Your task to perform on an android device: Open Reddit.com Image 0: 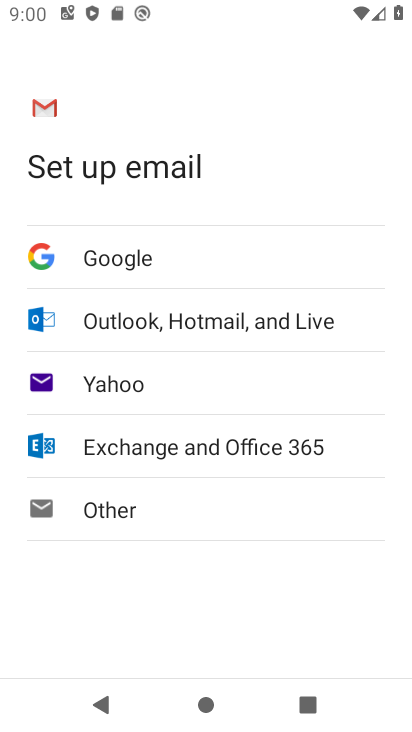
Step 0: press home button
Your task to perform on an android device: Open Reddit.com Image 1: 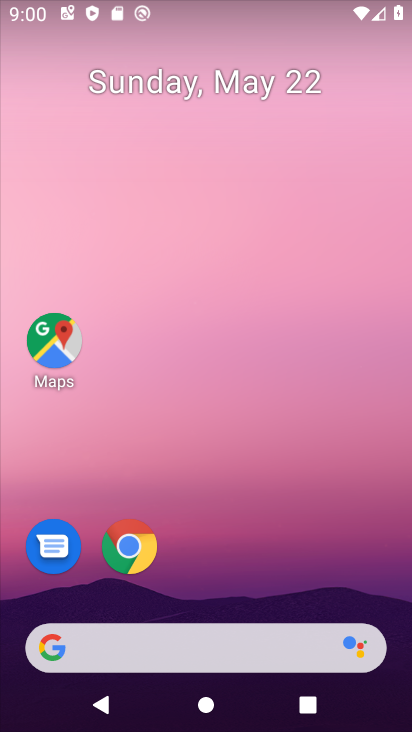
Step 1: click (132, 552)
Your task to perform on an android device: Open Reddit.com Image 2: 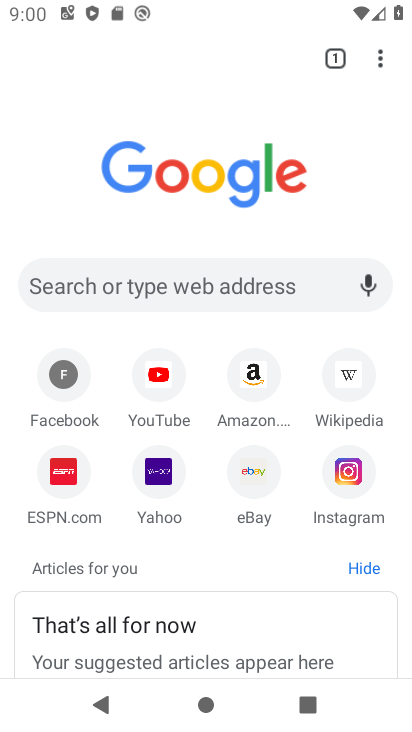
Step 2: click (197, 281)
Your task to perform on an android device: Open Reddit.com Image 3: 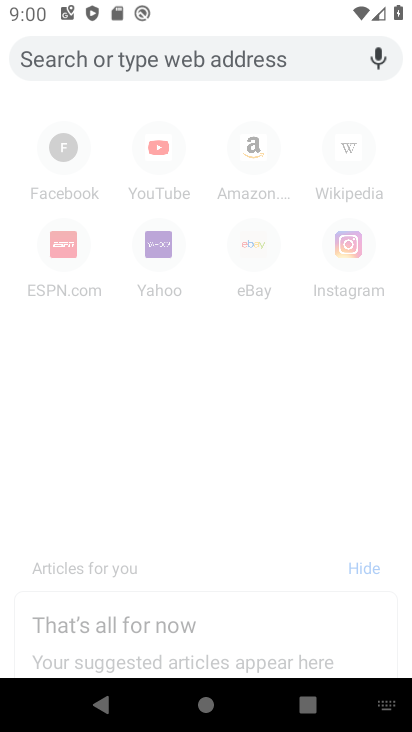
Step 3: type "reddit.com"
Your task to perform on an android device: Open Reddit.com Image 4: 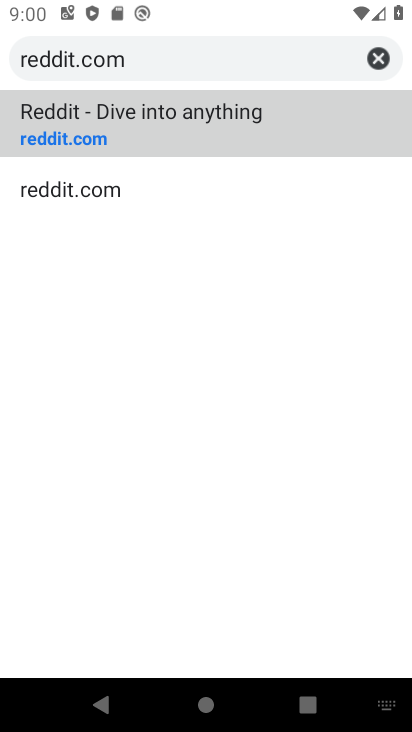
Step 4: click (185, 135)
Your task to perform on an android device: Open Reddit.com Image 5: 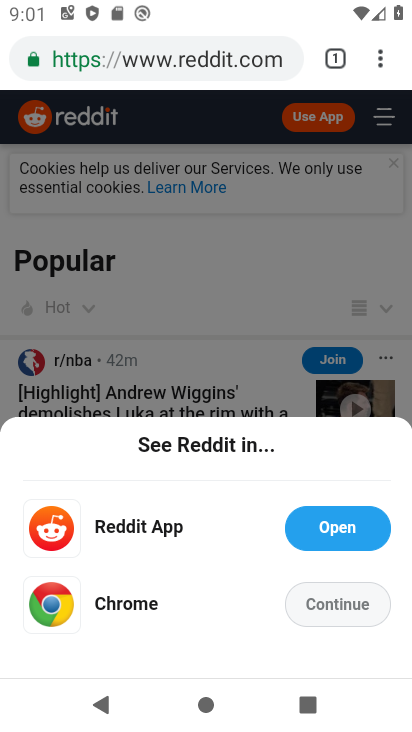
Step 5: task complete